Your task to perform on an android device: Go to Google Image 0: 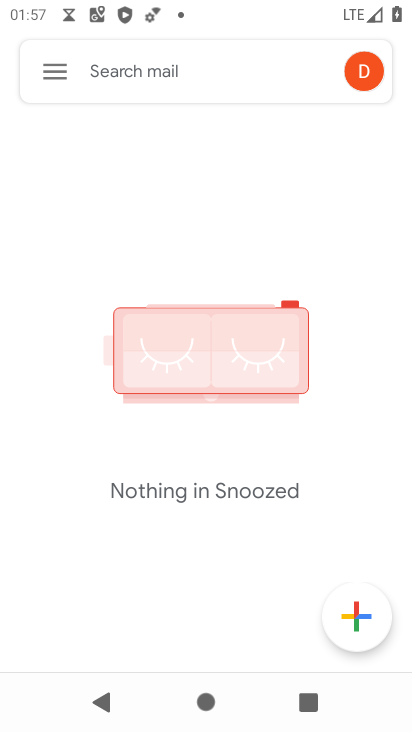
Step 0: press home button
Your task to perform on an android device: Go to Google Image 1: 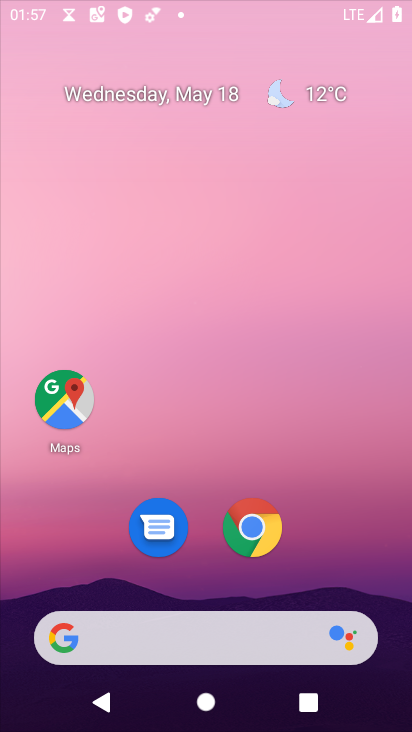
Step 1: drag from (270, 510) to (277, 59)
Your task to perform on an android device: Go to Google Image 2: 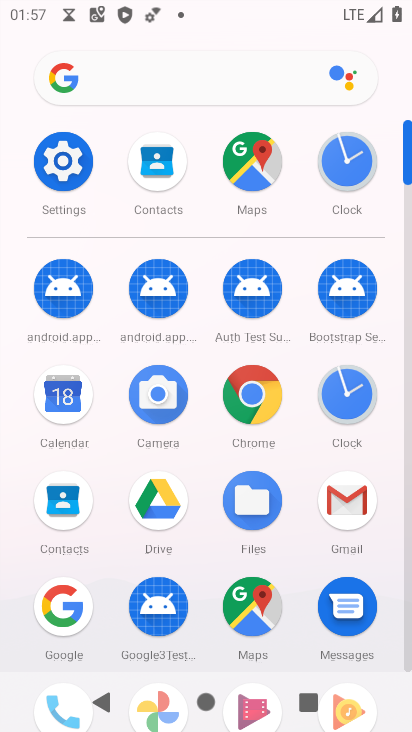
Step 2: click (59, 590)
Your task to perform on an android device: Go to Google Image 3: 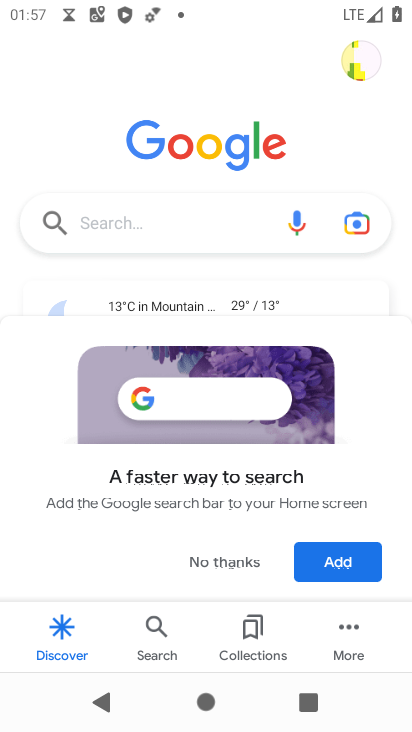
Step 3: task complete